Your task to perform on an android device: check storage Image 0: 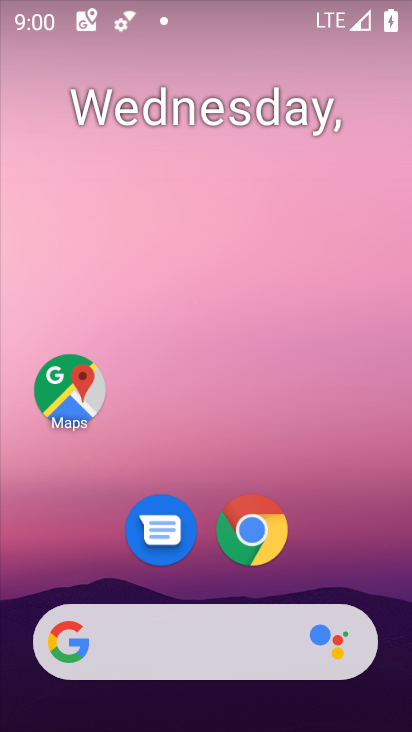
Step 0: drag from (390, 649) to (246, 68)
Your task to perform on an android device: check storage Image 1: 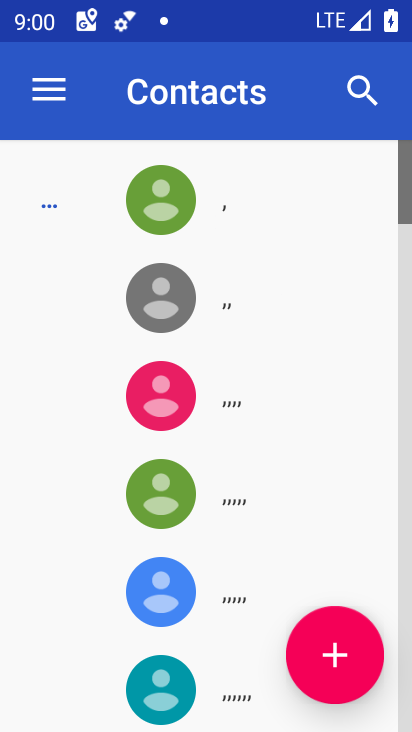
Step 1: press back button
Your task to perform on an android device: check storage Image 2: 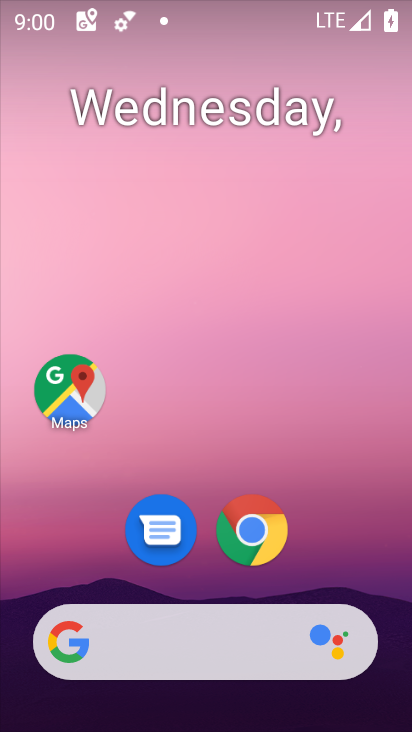
Step 2: drag from (402, 673) to (246, 36)
Your task to perform on an android device: check storage Image 3: 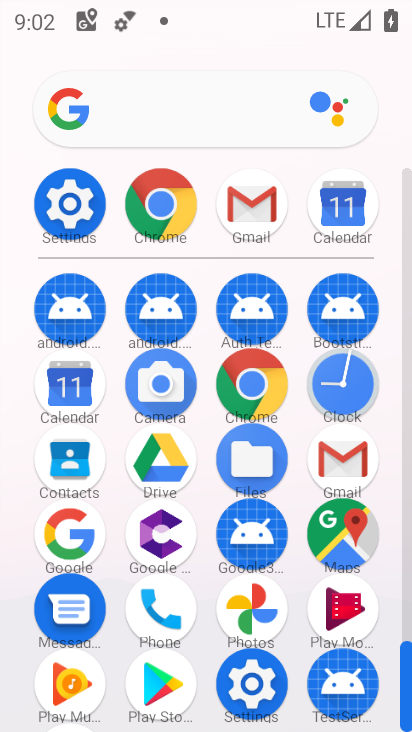
Step 3: click (246, 682)
Your task to perform on an android device: check storage Image 4: 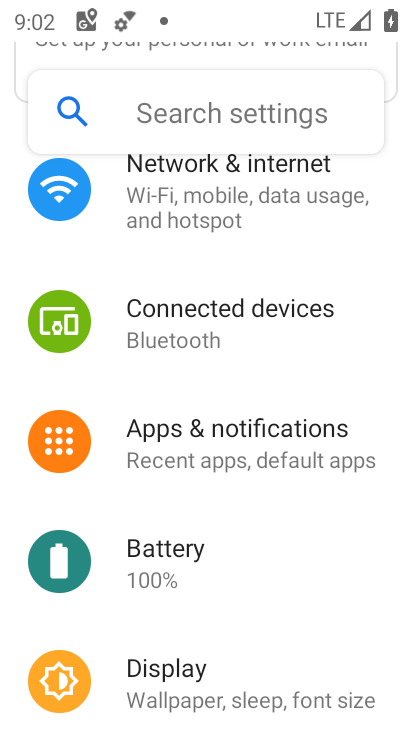
Step 4: drag from (195, 675) to (196, 205)
Your task to perform on an android device: check storage Image 5: 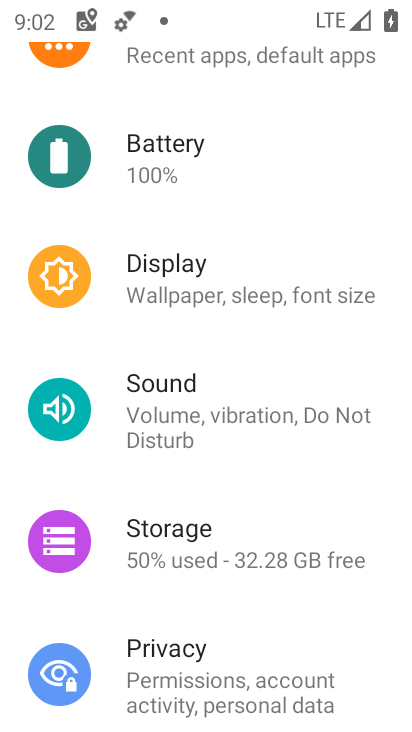
Step 5: click (228, 537)
Your task to perform on an android device: check storage Image 6: 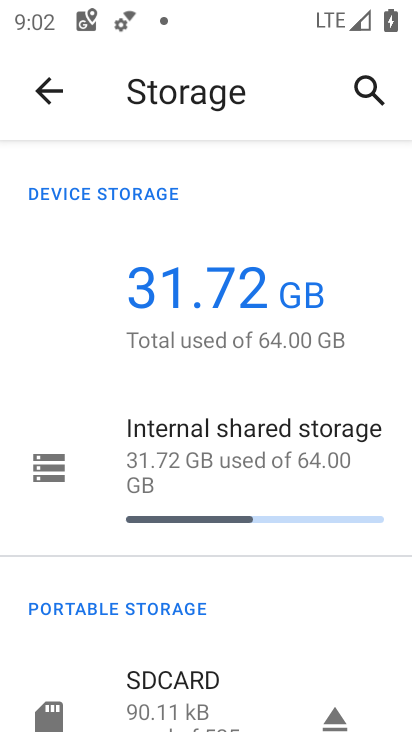
Step 6: click (201, 463)
Your task to perform on an android device: check storage Image 7: 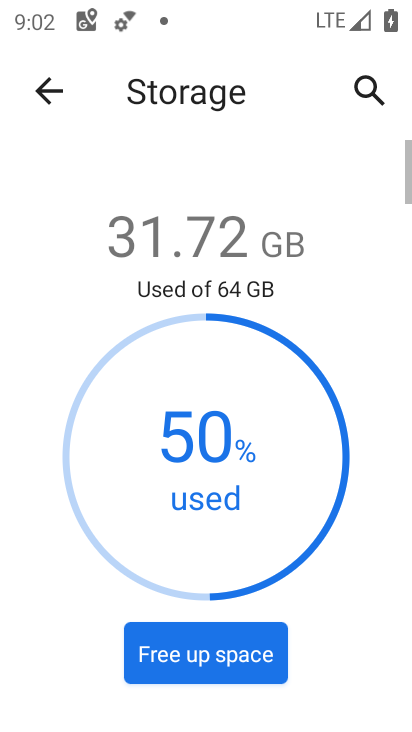
Step 7: task complete